Your task to perform on an android device: turn vacation reply on in the gmail app Image 0: 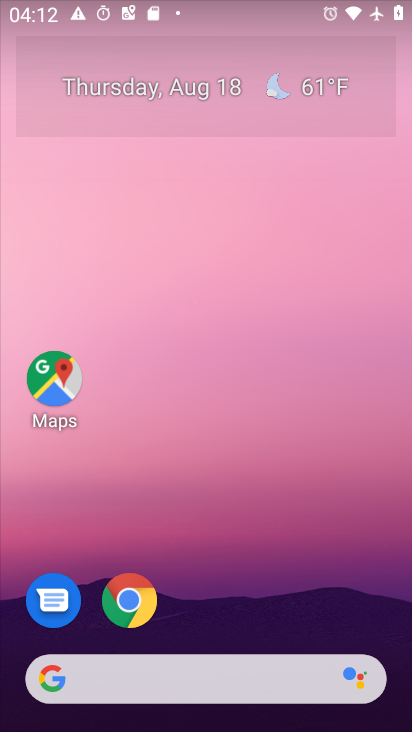
Step 0: press home button
Your task to perform on an android device: turn vacation reply on in the gmail app Image 1: 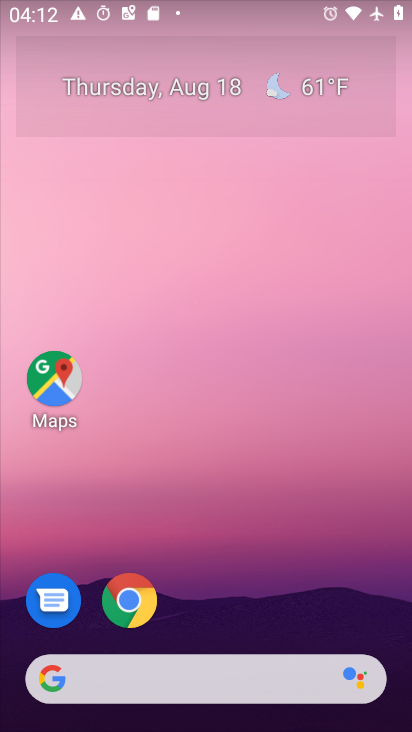
Step 1: drag from (257, 634) to (324, 57)
Your task to perform on an android device: turn vacation reply on in the gmail app Image 2: 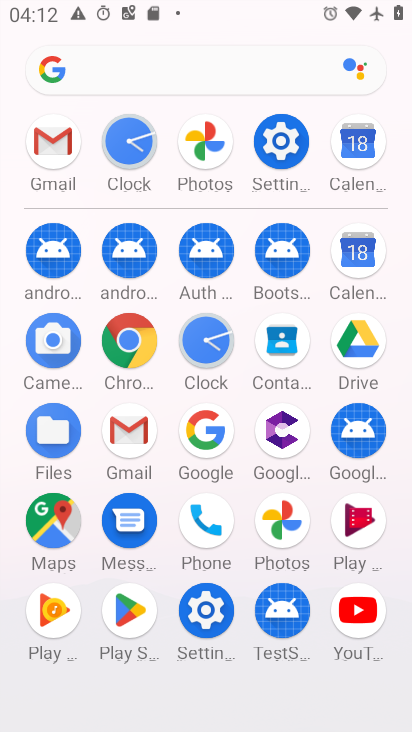
Step 2: click (55, 142)
Your task to perform on an android device: turn vacation reply on in the gmail app Image 3: 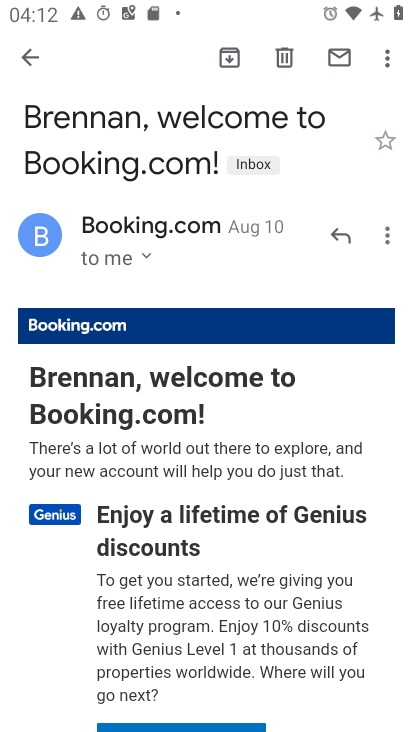
Step 3: press back button
Your task to perform on an android device: turn vacation reply on in the gmail app Image 4: 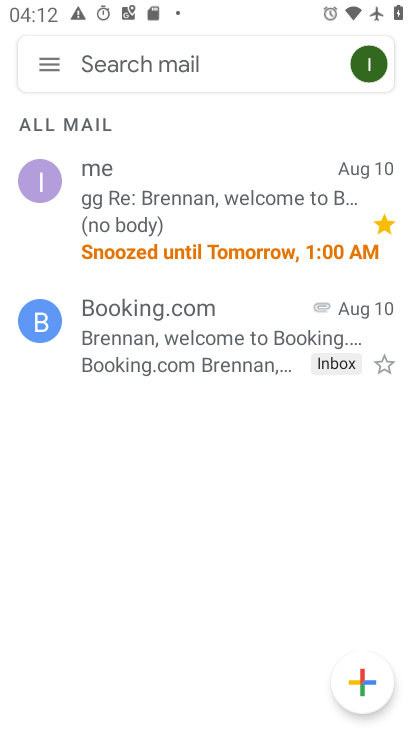
Step 4: click (47, 63)
Your task to perform on an android device: turn vacation reply on in the gmail app Image 5: 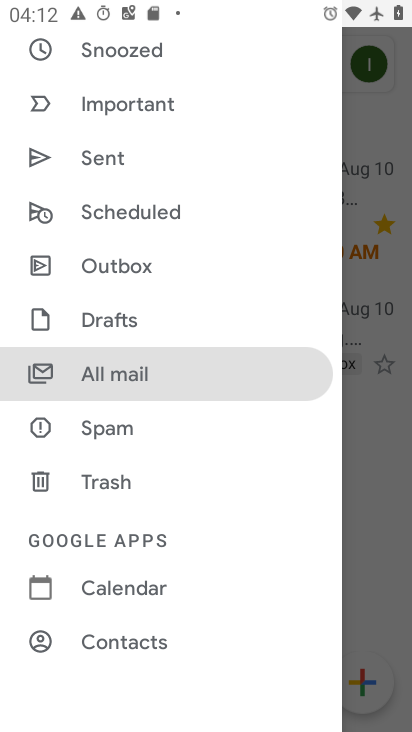
Step 5: drag from (279, 563) to (232, 122)
Your task to perform on an android device: turn vacation reply on in the gmail app Image 6: 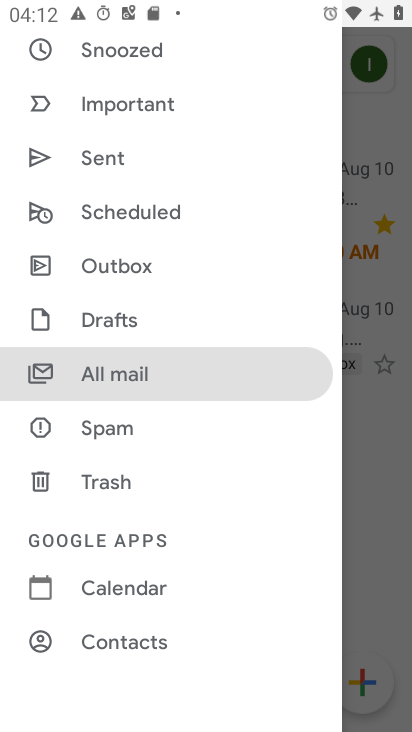
Step 6: drag from (250, 231) to (402, 2)
Your task to perform on an android device: turn vacation reply on in the gmail app Image 7: 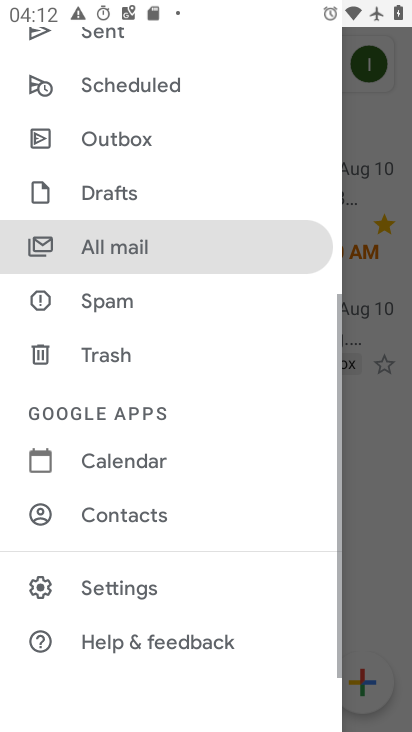
Step 7: click (125, 586)
Your task to perform on an android device: turn vacation reply on in the gmail app Image 8: 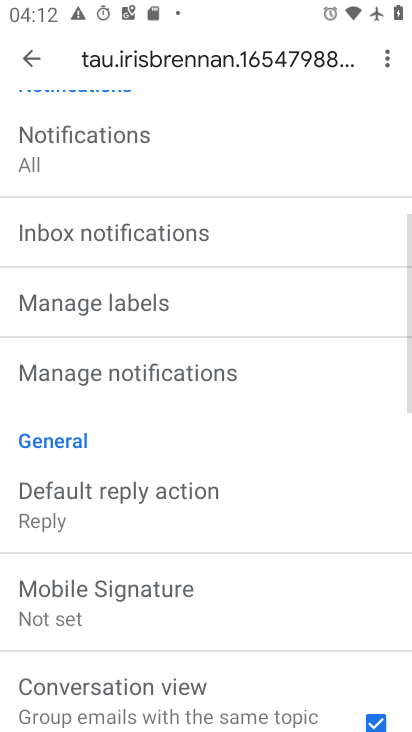
Step 8: drag from (327, 505) to (410, 73)
Your task to perform on an android device: turn vacation reply on in the gmail app Image 9: 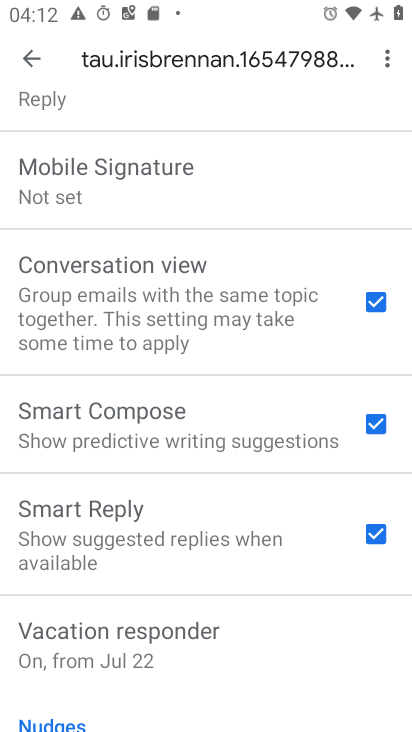
Step 9: click (105, 633)
Your task to perform on an android device: turn vacation reply on in the gmail app Image 10: 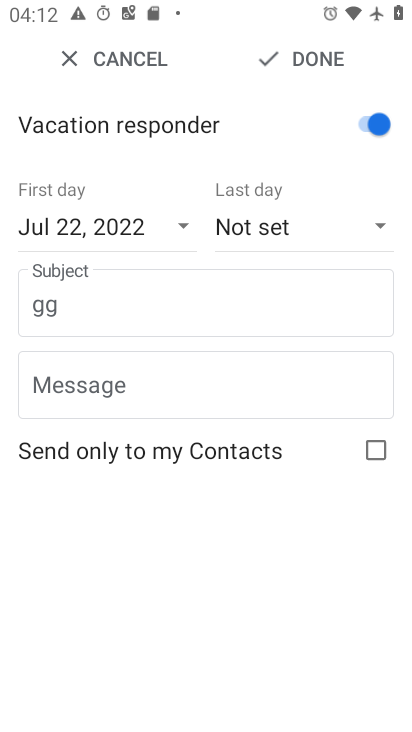
Step 10: task complete